Your task to perform on an android device: toggle priority inbox in the gmail app Image 0: 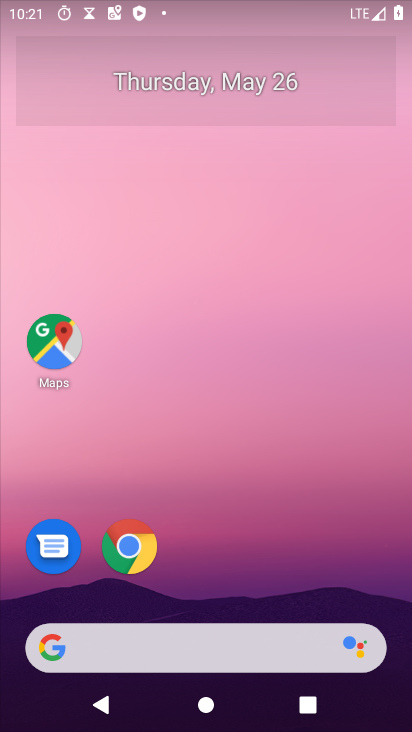
Step 0: drag from (394, 561) to (346, 95)
Your task to perform on an android device: toggle priority inbox in the gmail app Image 1: 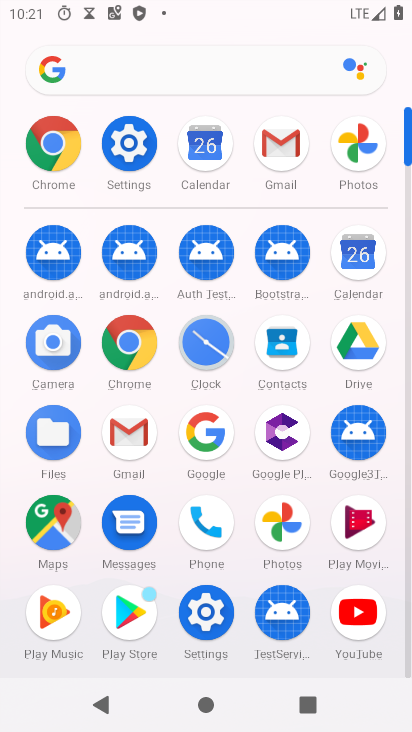
Step 1: click (138, 450)
Your task to perform on an android device: toggle priority inbox in the gmail app Image 2: 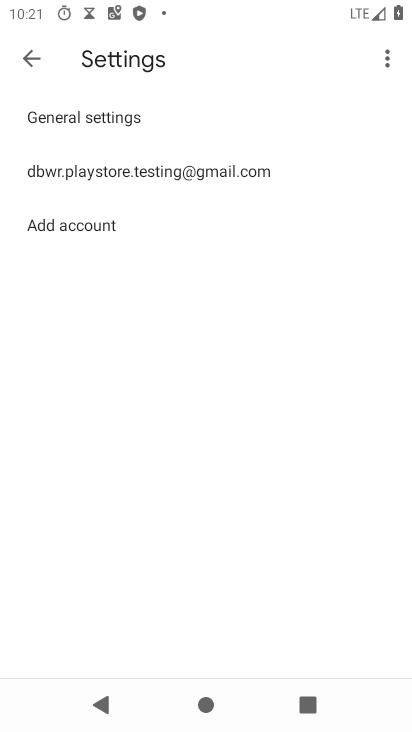
Step 2: click (149, 173)
Your task to perform on an android device: toggle priority inbox in the gmail app Image 3: 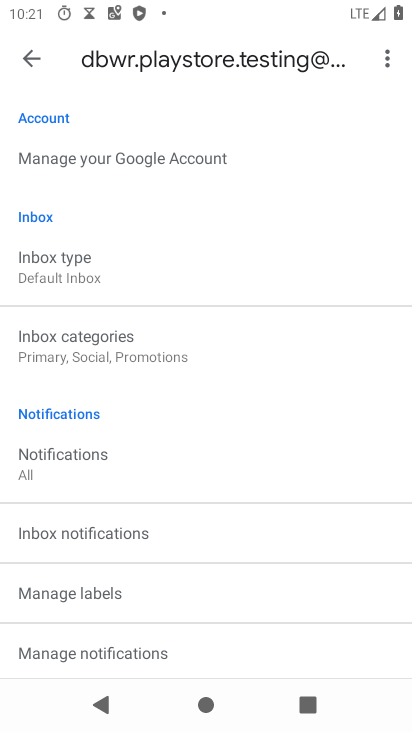
Step 3: click (83, 273)
Your task to perform on an android device: toggle priority inbox in the gmail app Image 4: 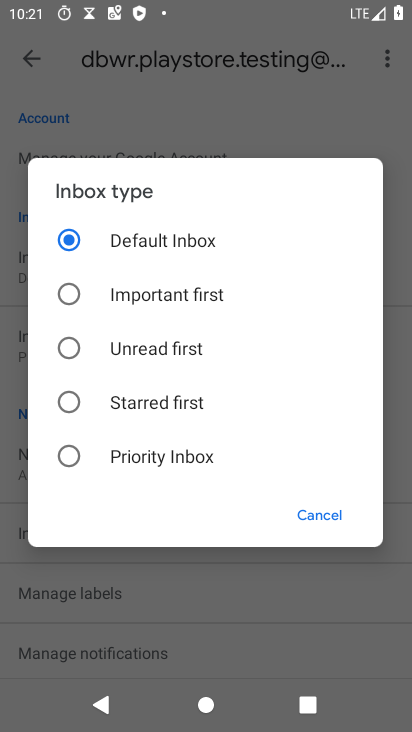
Step 4: click (61, 457)
Your task to perform on an android device: toggle priority inbox in the gmail app Image 5: 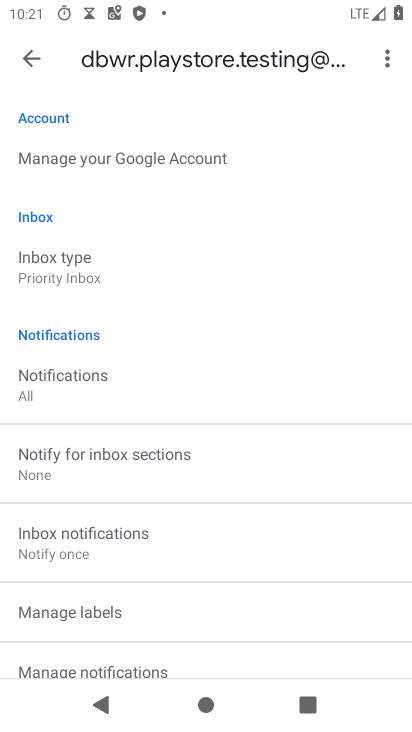
Step 5: task complete